Your task to perform on an android device: Is it going to rain tomorrow? Image 0: 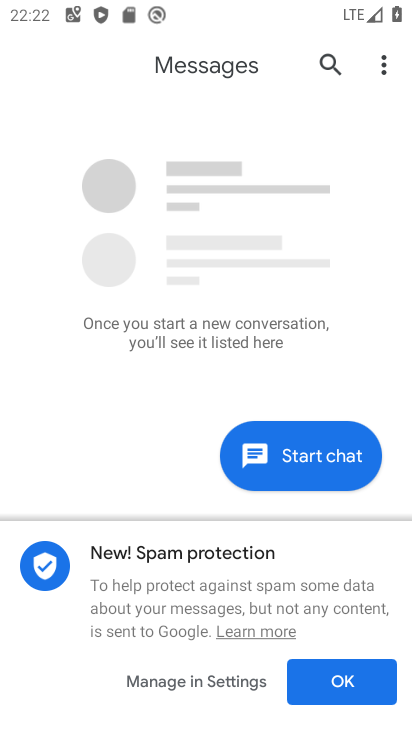
Step 0: press home button
Your task to perform on an android device: Is it going to rain tomorrow? Image 1: 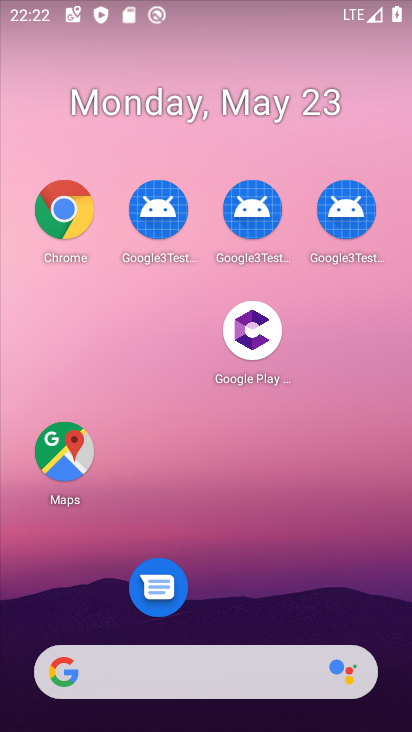
Step 1: drag from (281, 508) to (276, 329)
Your task to perform on an android device: Is it going to rain tomorrow? Image 2: 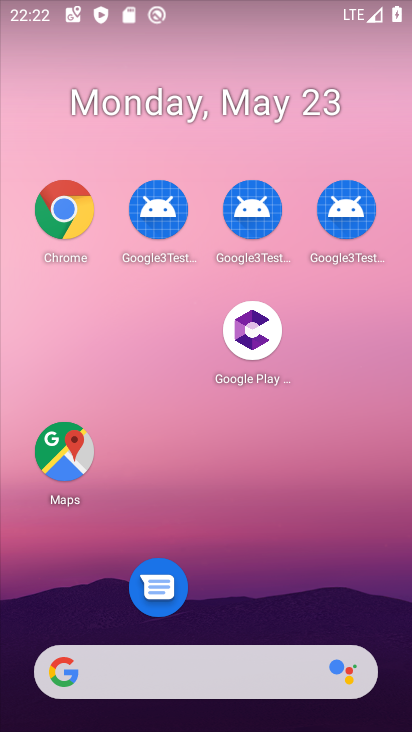
Step 2: click (228, 669)
Your task to perform on an android device: Is it going to rain tomorrow? Image 3: 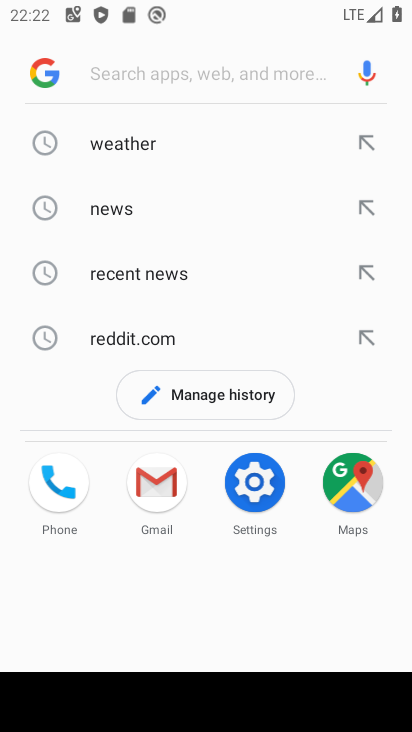
Step 3: click (161, 151)
Your task to perform on an android device: Is it going to rain tomorrow? Image 4: 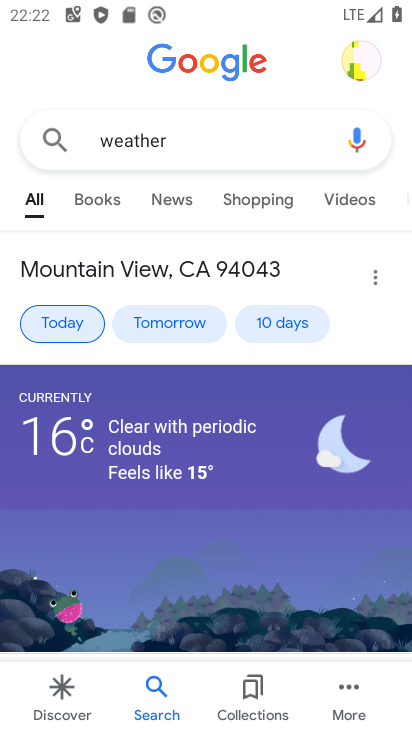
Step 4: click (138, 321)
Your task to perform on an android device: Is it going to rain tomorrow? Image 5: 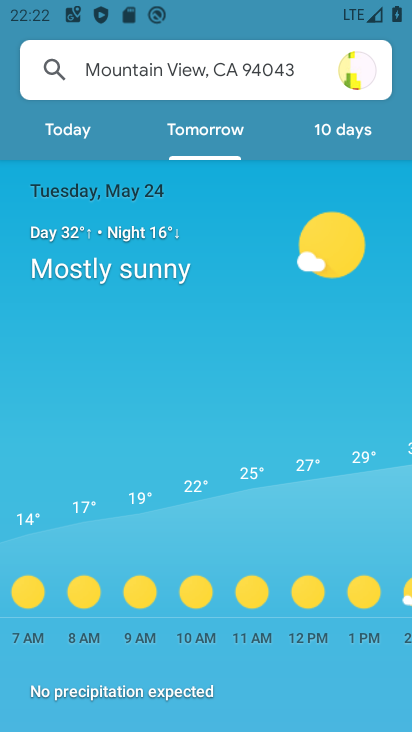
Step 5: drag from (276, 522) to (208, 537)
Your task to perform on an android device: Is it going to rain tomorrow? Image 6: 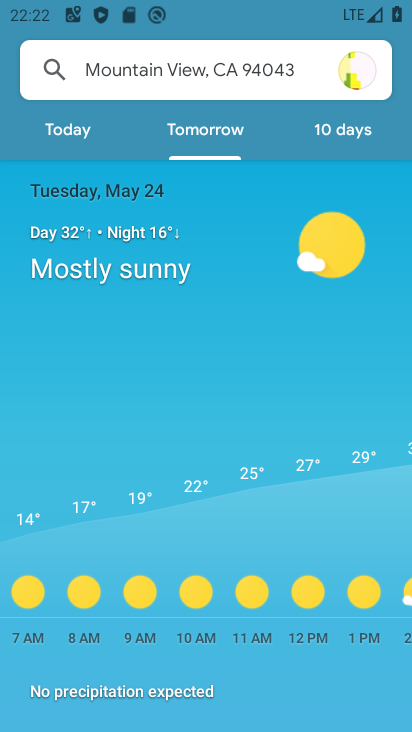
Step 6: drag from (234, 503) to (49, 511)
Your task to perform on an android device: Is it going to rain tomorrow? Image 7: 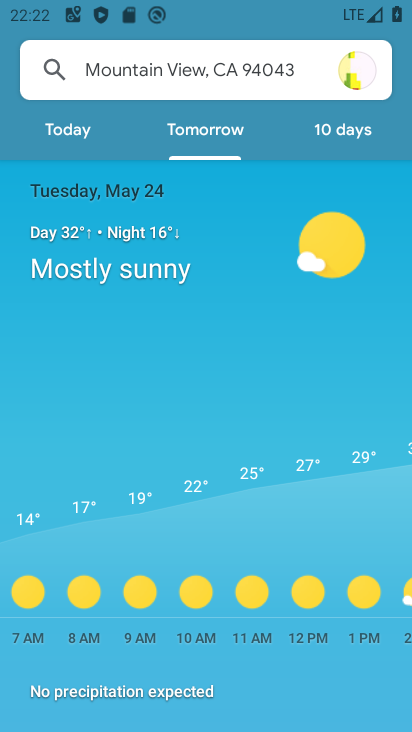
Step 7: drag from (354, 402) to (14, 488)
Your task to perform on an android device: Is it going to rain tomorrow? Image 8: 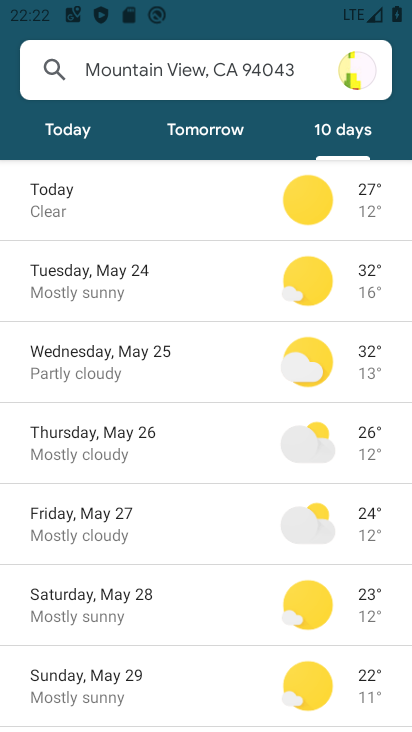
Step 8: drag from (179, 616) to (162, 160)
Your task to perform on an android device: Is it going to rain tomorrow? Image 9: 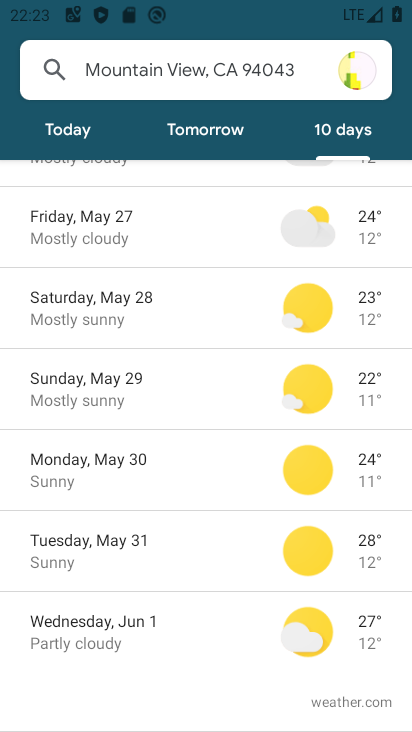
Step 9: drag from (194, 256) to (307, 245)
Your task to perform on an android device: Is it going to rain tomorrow? Image 10: 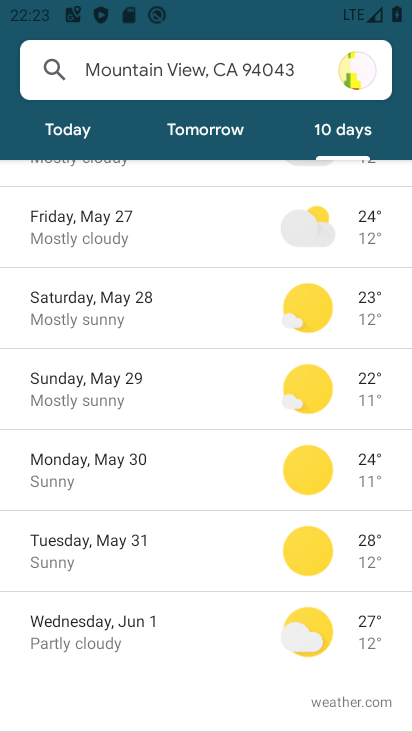
Step 10: drag from (87, 264) to (143, 551)
Your task to perform on an android device: Is it going to rain tomorrow? Image 11: 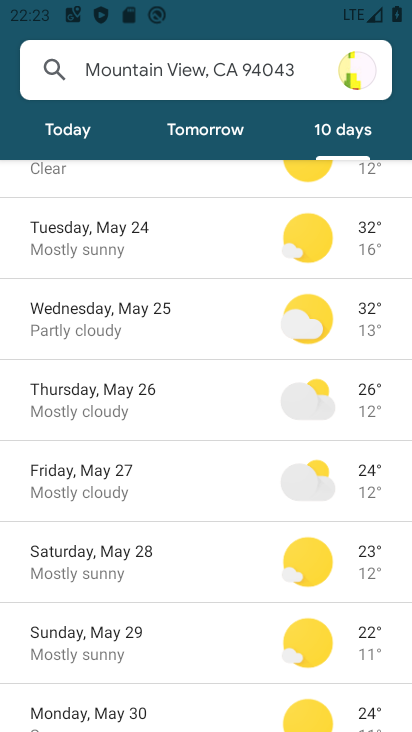
Step 11: click (134, 238)
Your task to perform on an android device: Is it going to rain tomorrow? Image 12: 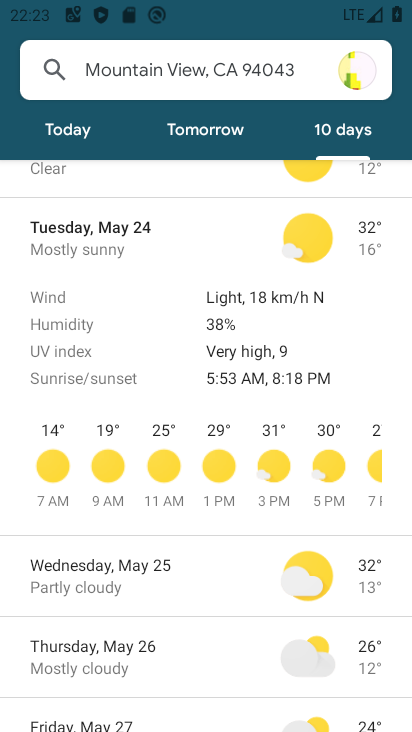
Step 12: task complete